Your task to perform on an android device: Toggle the flashlight Image 0: 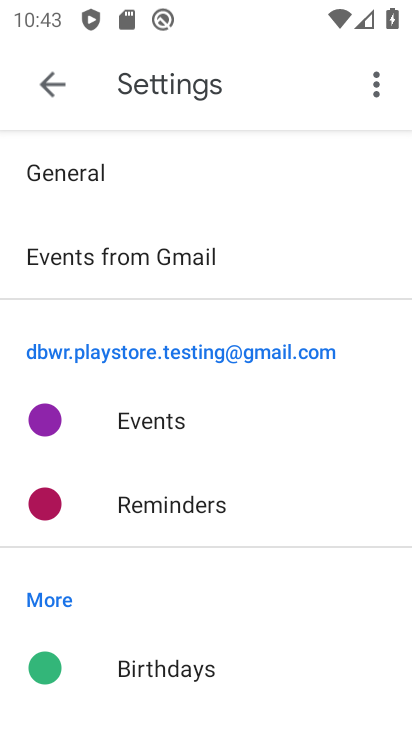
Step 0: press home button
Your task to perform on an android device: Toggle the flashlight Image 1: 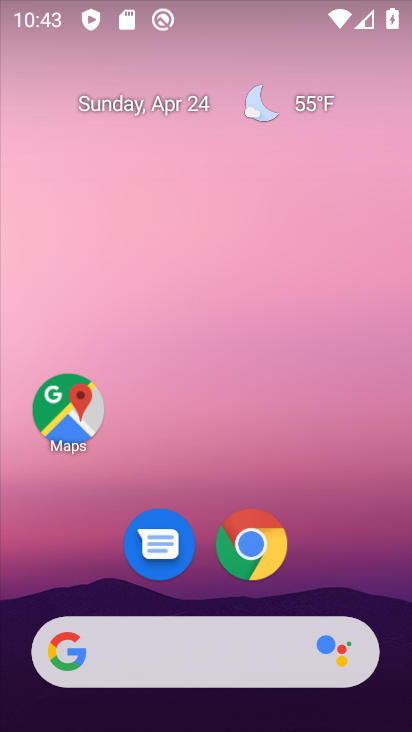
Step 1: drag from (325, 468) to (235, 87)
Your task to perform on an android device: Toggle the flashlight Image 2: 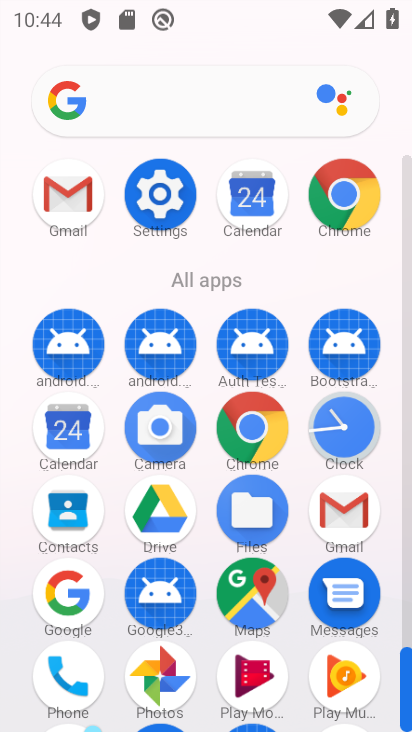
Step 2: click (166, 192)
Your task to perform on an android device: Toggle the flashlight Image 3: 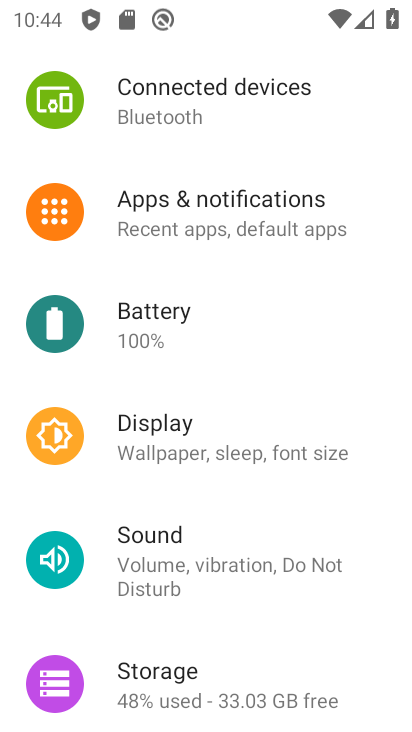
Step 3: drag from (310, 110) to (278, 563)
Your task to perform on an android device: Toggle the flashlight Image 4: 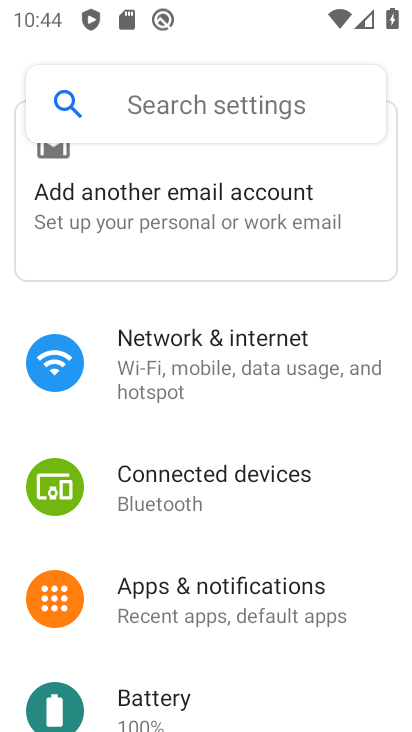
Step 4: click (173, 95)
Your task to perform on an android device: Toggle the flashlight Image 5: 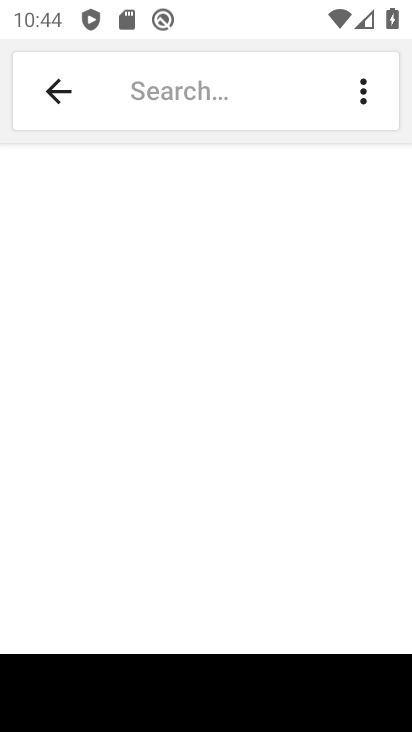
Step 5: type "flashlight"
Your task to perform on an android device: Toggle the flashlight Image 6: 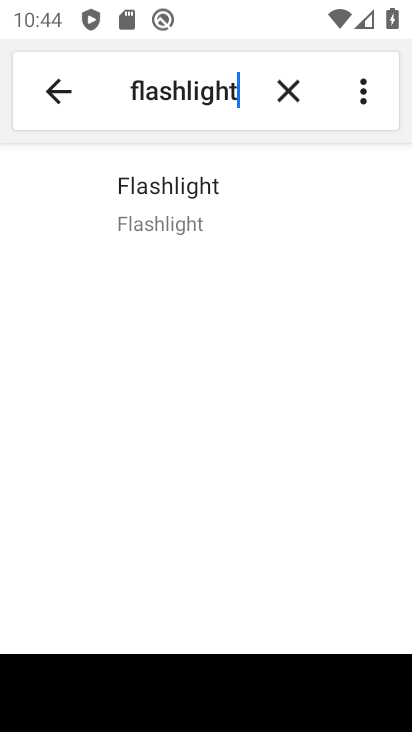
Step 6: click (196, 209)
Your task to perform on an android device: Toggle the flashlight Image 7: 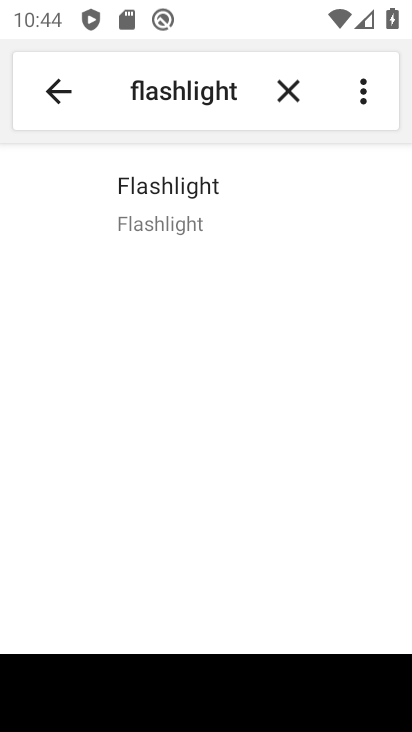
Step 7: task complete